Your task to perform on an android device: Open Chrome and go to the settings page Image 0: 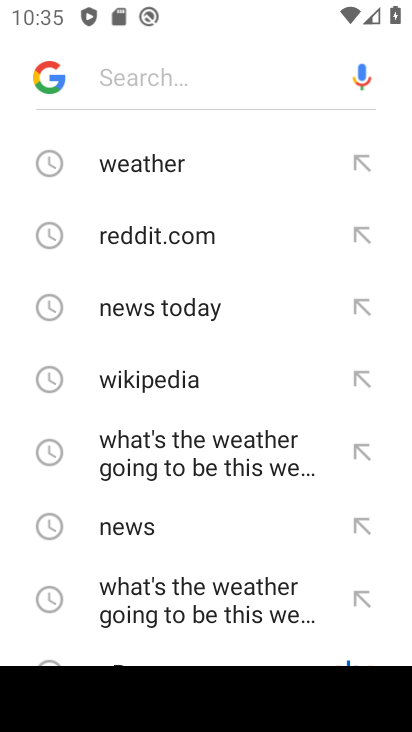
Step 0: press home button
Your task to perform on an android device: Open Chrome and go to the settings page Image 1: 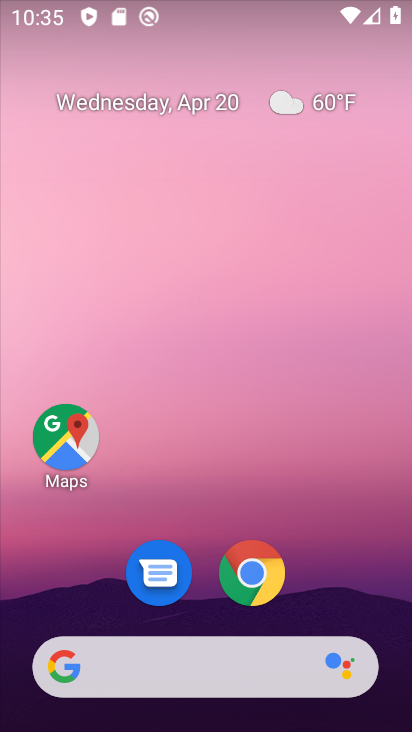
Step 1: click (269, 585)
Your task to perform on an android device: Open Chrome and go to the settings page Image 2: 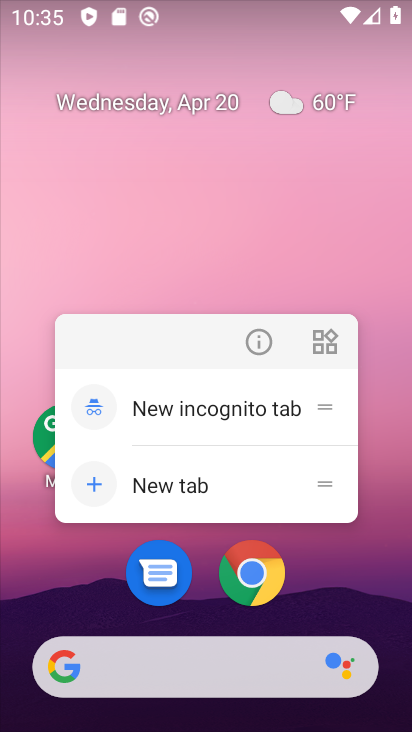
Step 2: click (251, 586)
Your task to perform on an android device: Open Chrome and go to the settings page Image 3: 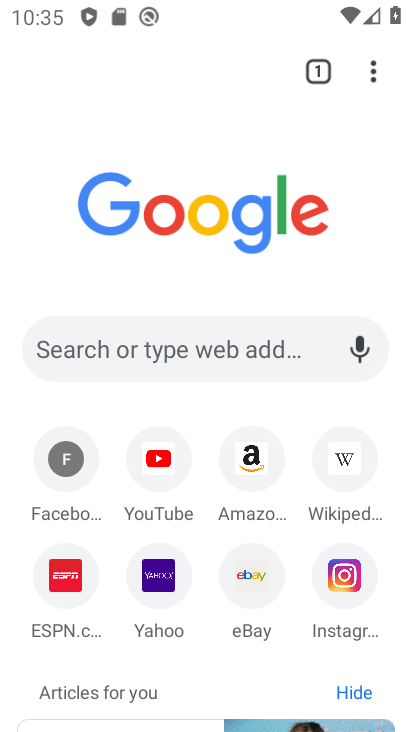
Step 3: task complete